Your task to perform on an android device: Search for the new Nike Air Jordan 33 on Nike.com Image 0: 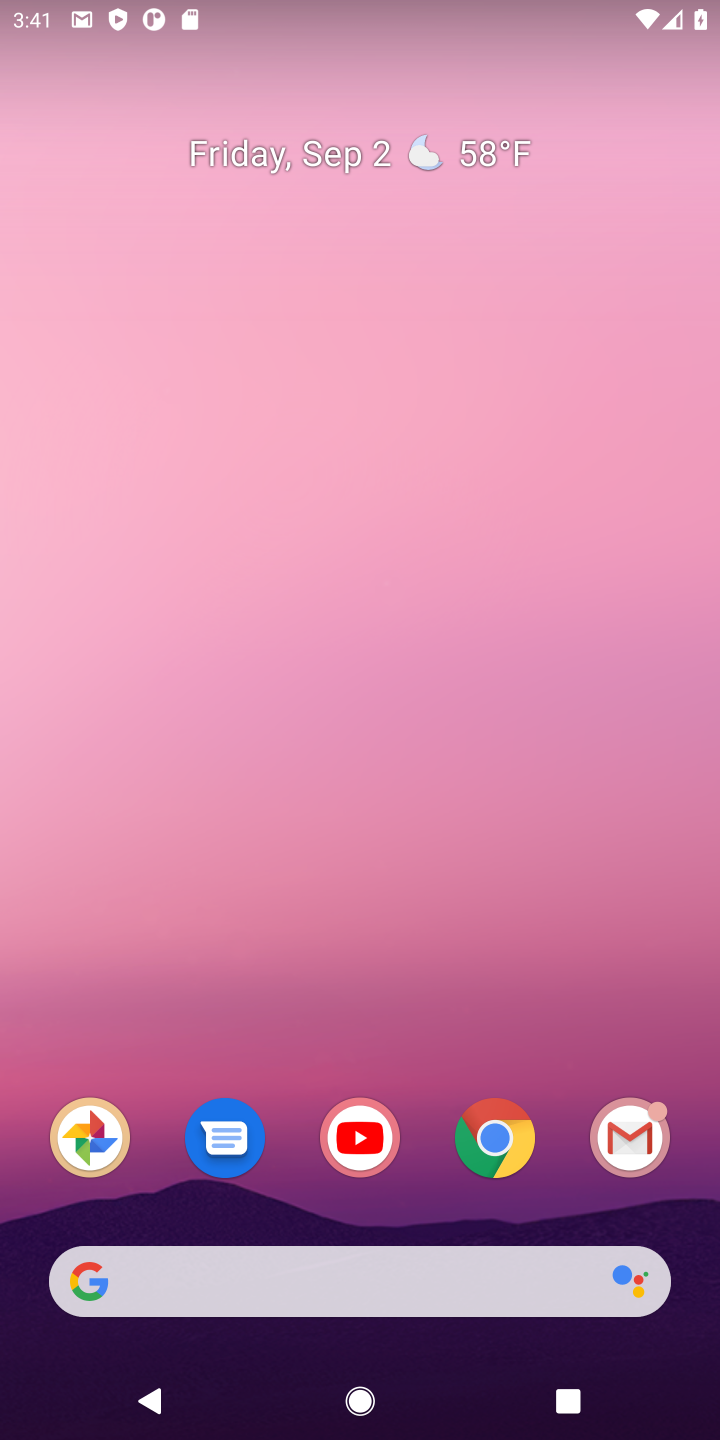
Step 0: click (488, 1143)
Your task to perform on an android device: Search for the new Nike Air Jordan 33 on Nike.com Image 1: 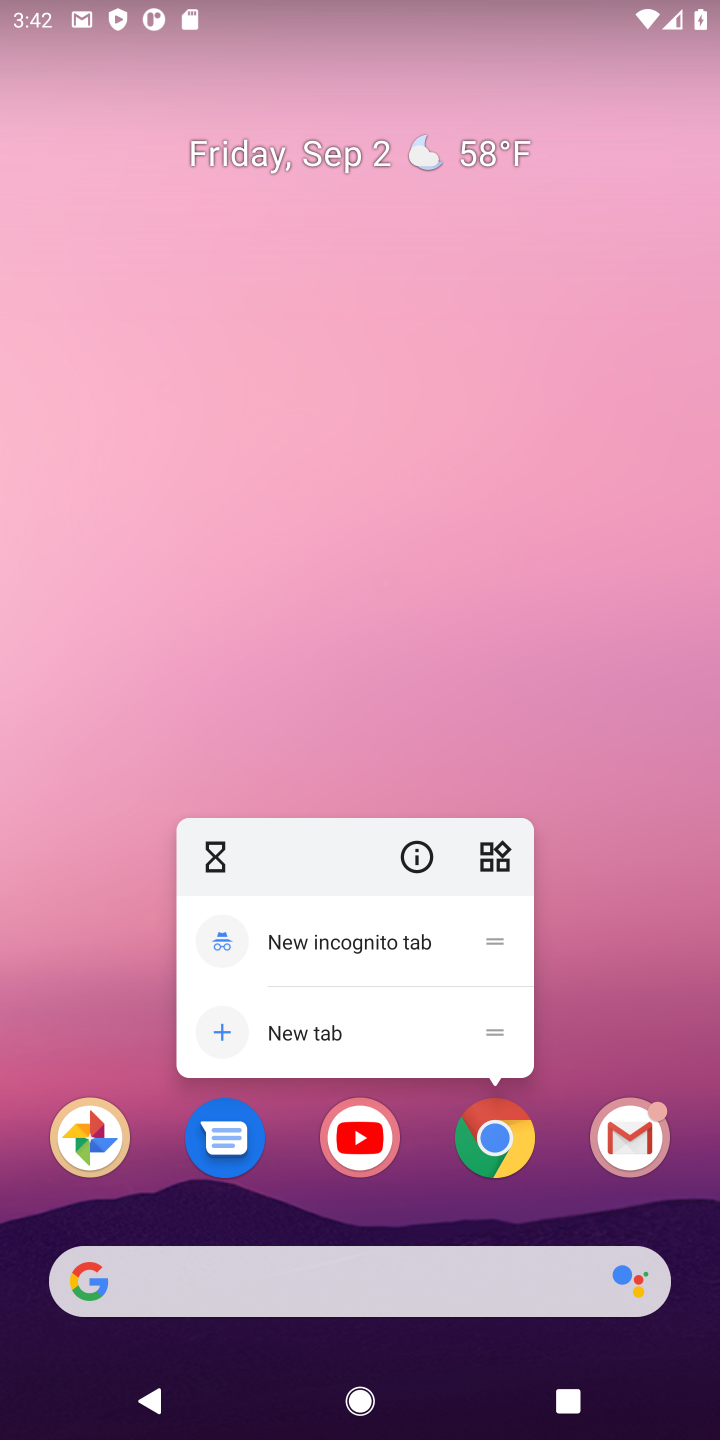
Step 1: click (506, 1124)
Your task to perform on an android device: Search for the new Nike Air Jordan 33 on Nike.com Image 2: 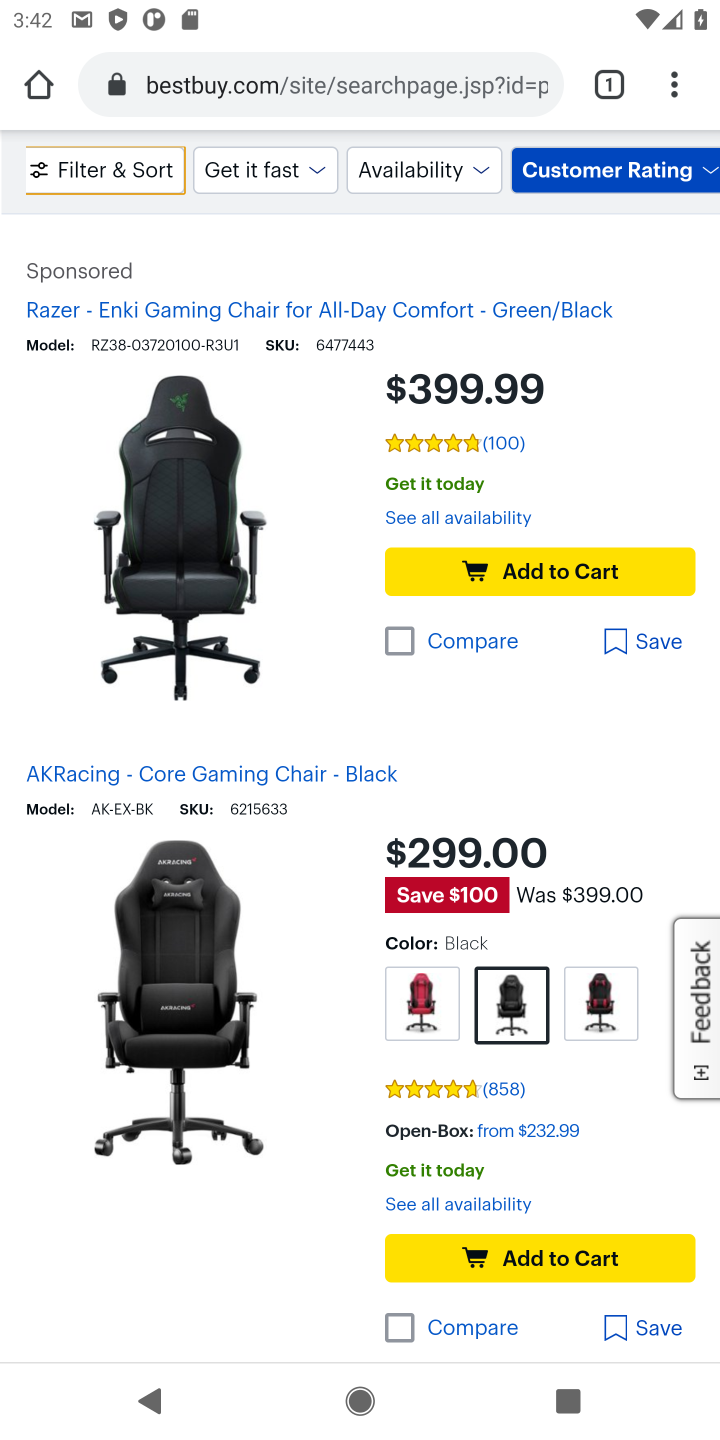
Step 2: click (379, 85)
Your task to perform on an android device: Search for the new Nike Air Jordan 33 on Nike.com Image 3: 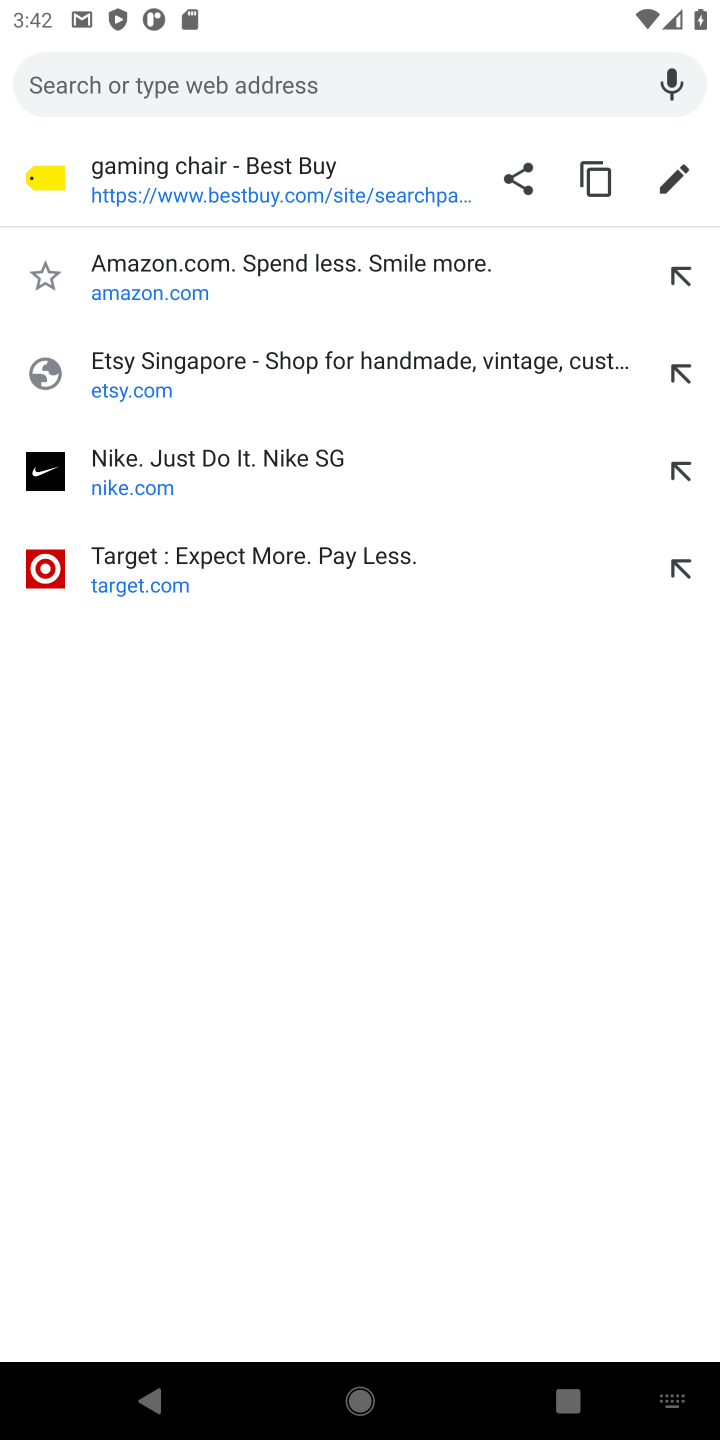
Step 3: type "nike.com"
Your task to perform on an android device: Search for the new Nike Air Jordan 33 on Nike.com Image 4: 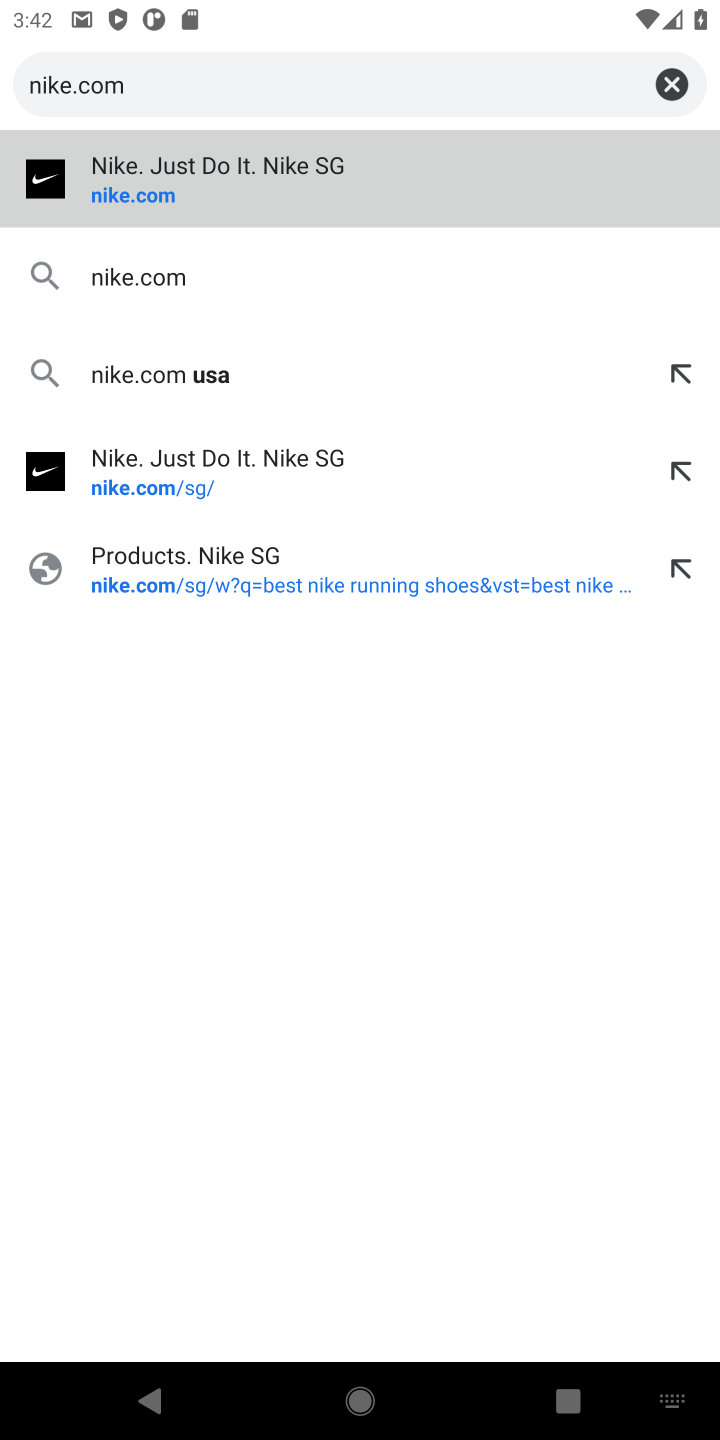
Step 4: click (271, 182)
Your task to perform on an android device: Search for the new Nike Air Jordan 33 on Nike.com Image 5: 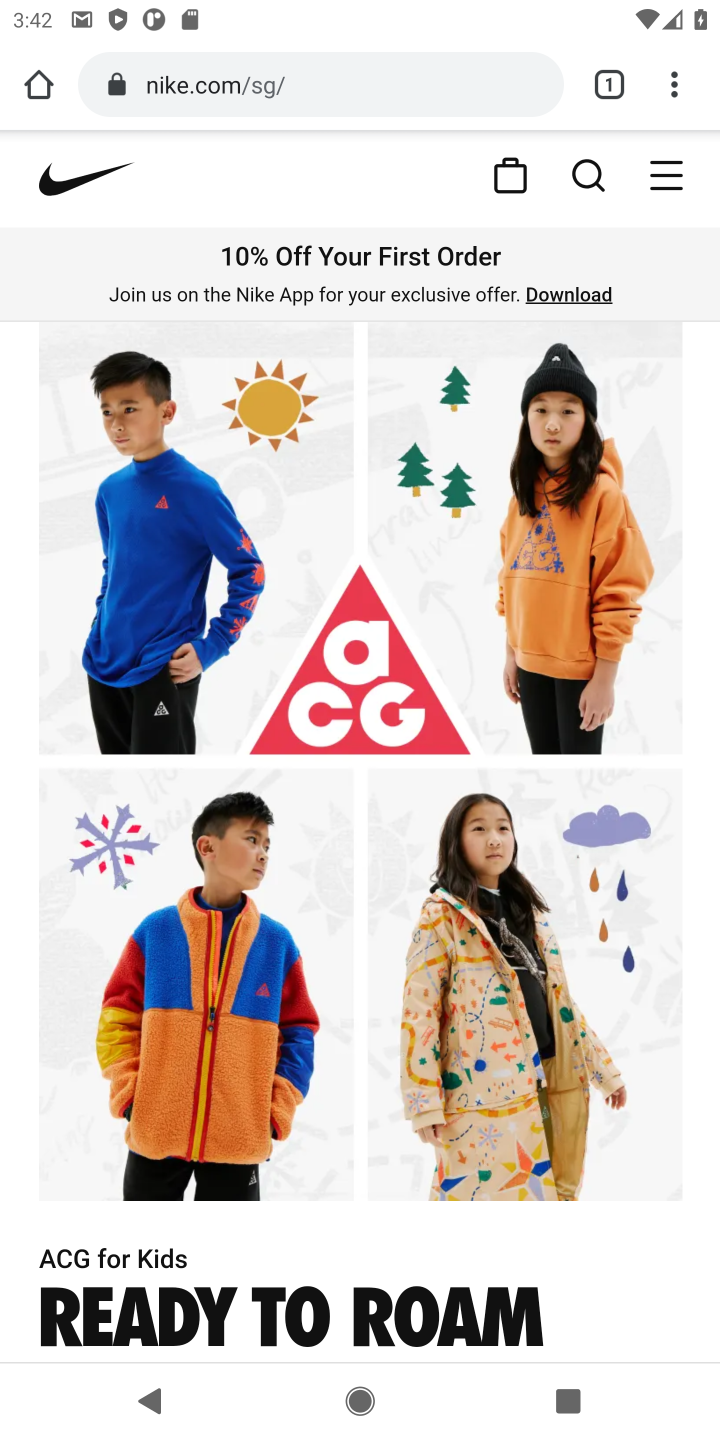
Step 5: click (593, 180)
Your task to perform on an android device: Search for the new Nike Air Jordan 33 on Nike.com Image 6: 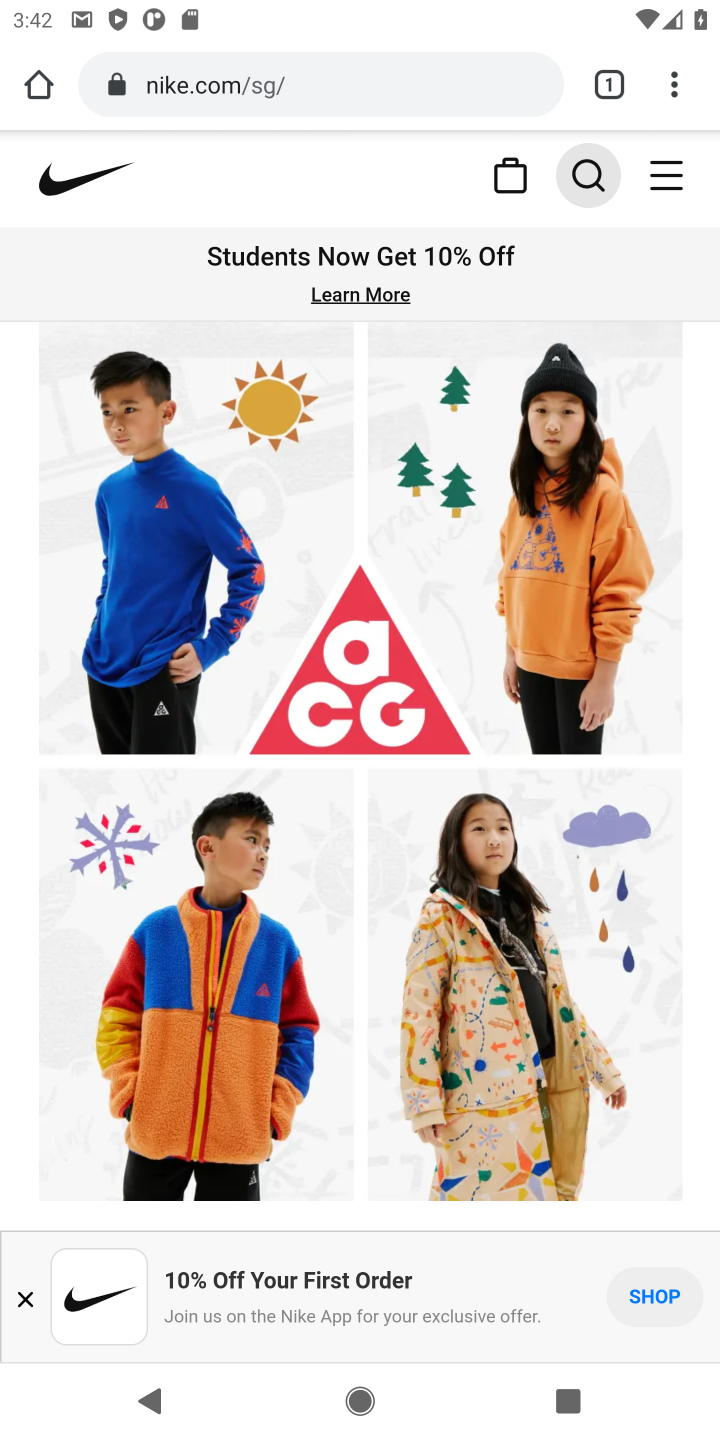
Step 6: click (591, 185)
Your task to perform on an android device: Search for the new Nike Air Jordan 33 on Nike.com Image 7: 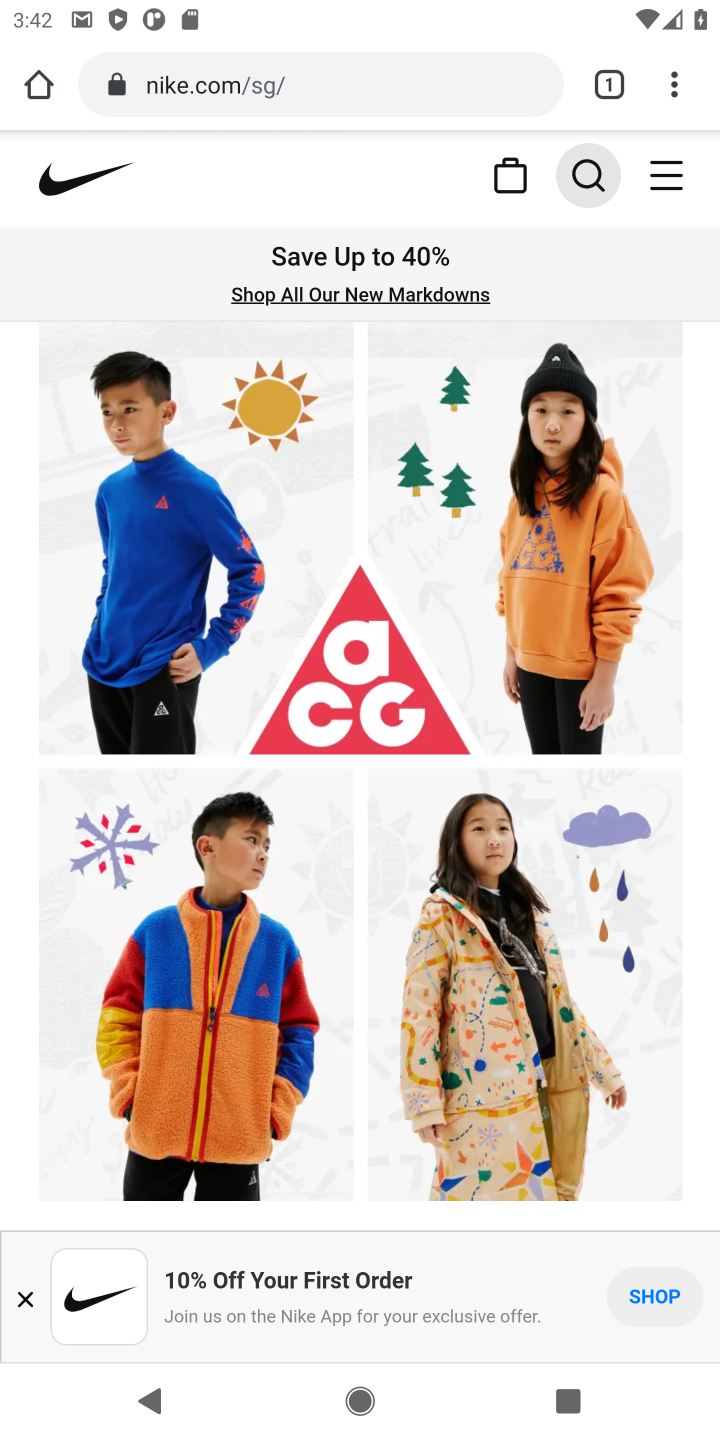
Step 7: click (591, 166)
Your task to perform on an android device: Search for the new Nike Air Jordan 33 on Nike.com Image 8: 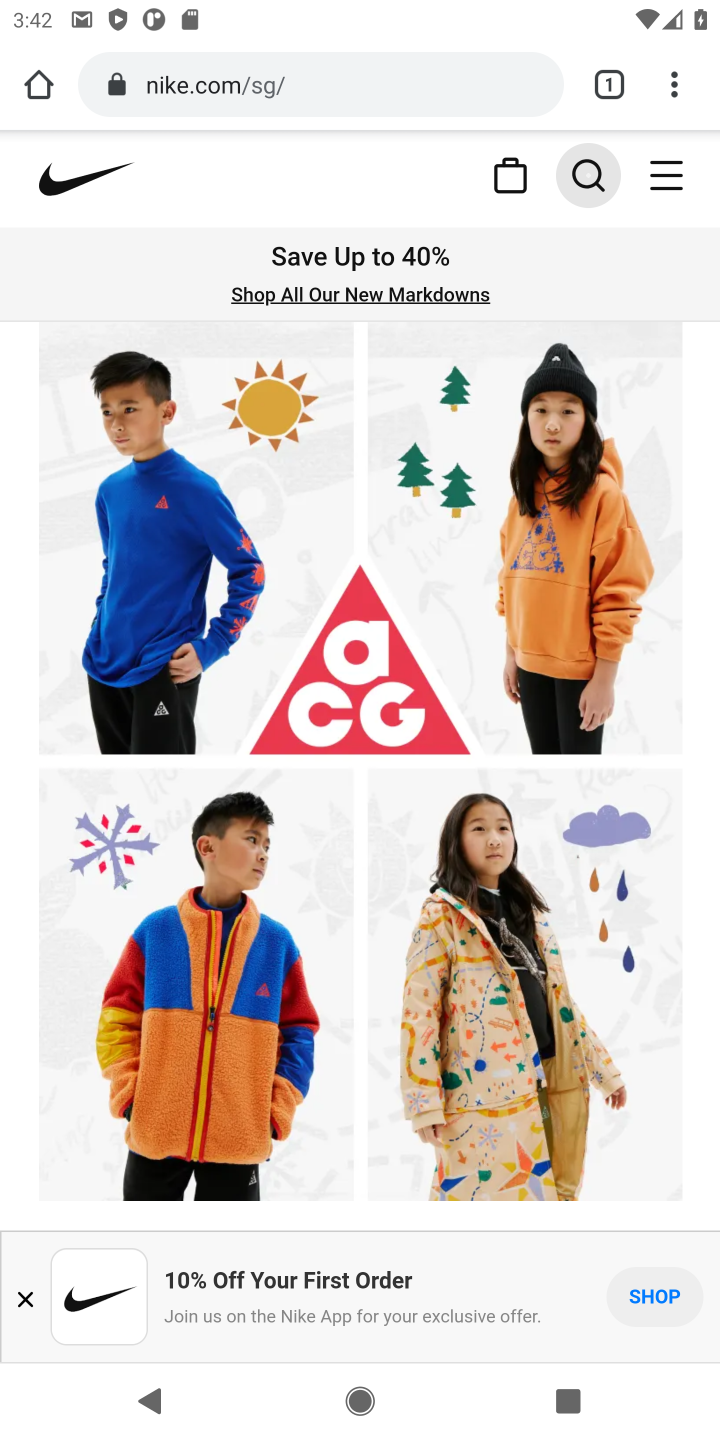
Step 8: click (591, 166)
Your task to perform on an android device: Search for the new Nike Air Jordan 33 on Nike.com Image 9: 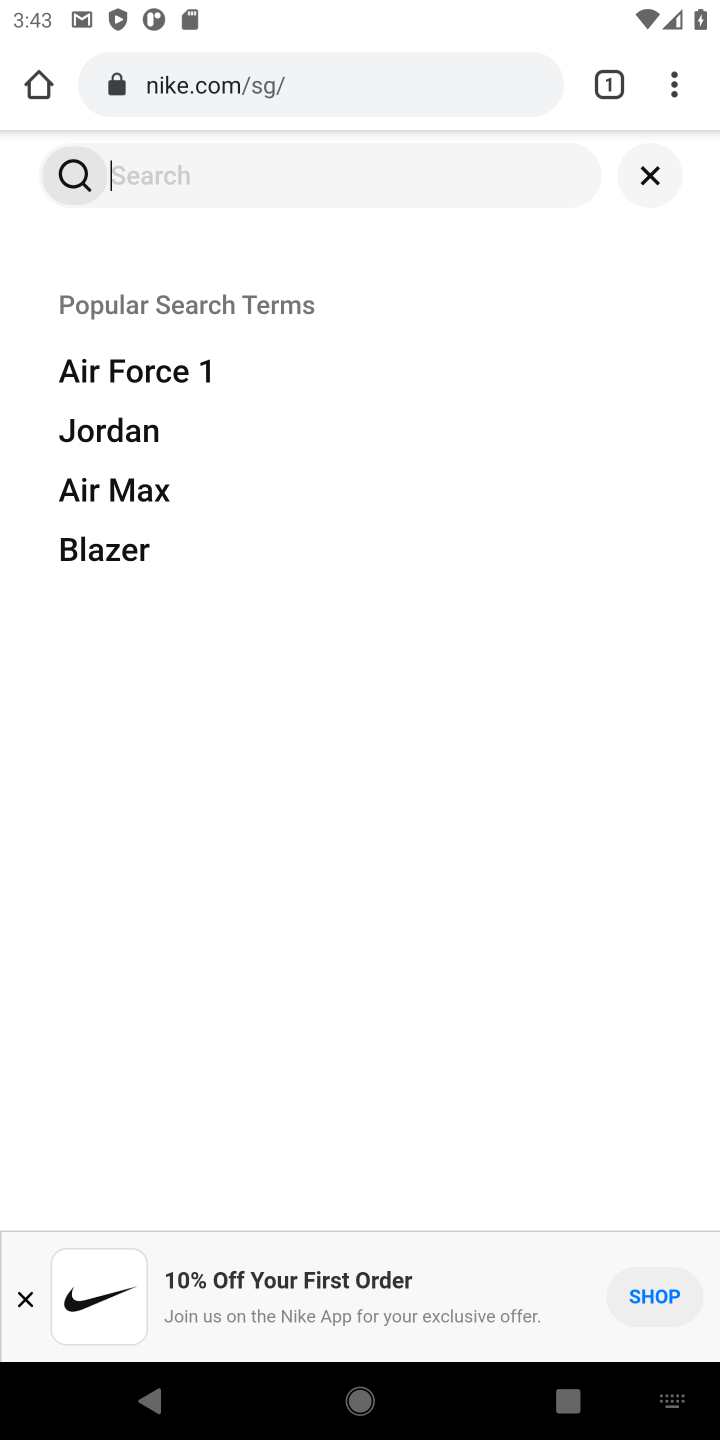
Step 9: type "new nike air jordan 33"
Your task to perform on an android device: Search for the new Nike Air Jordan 33 on Nike.com Image 10: 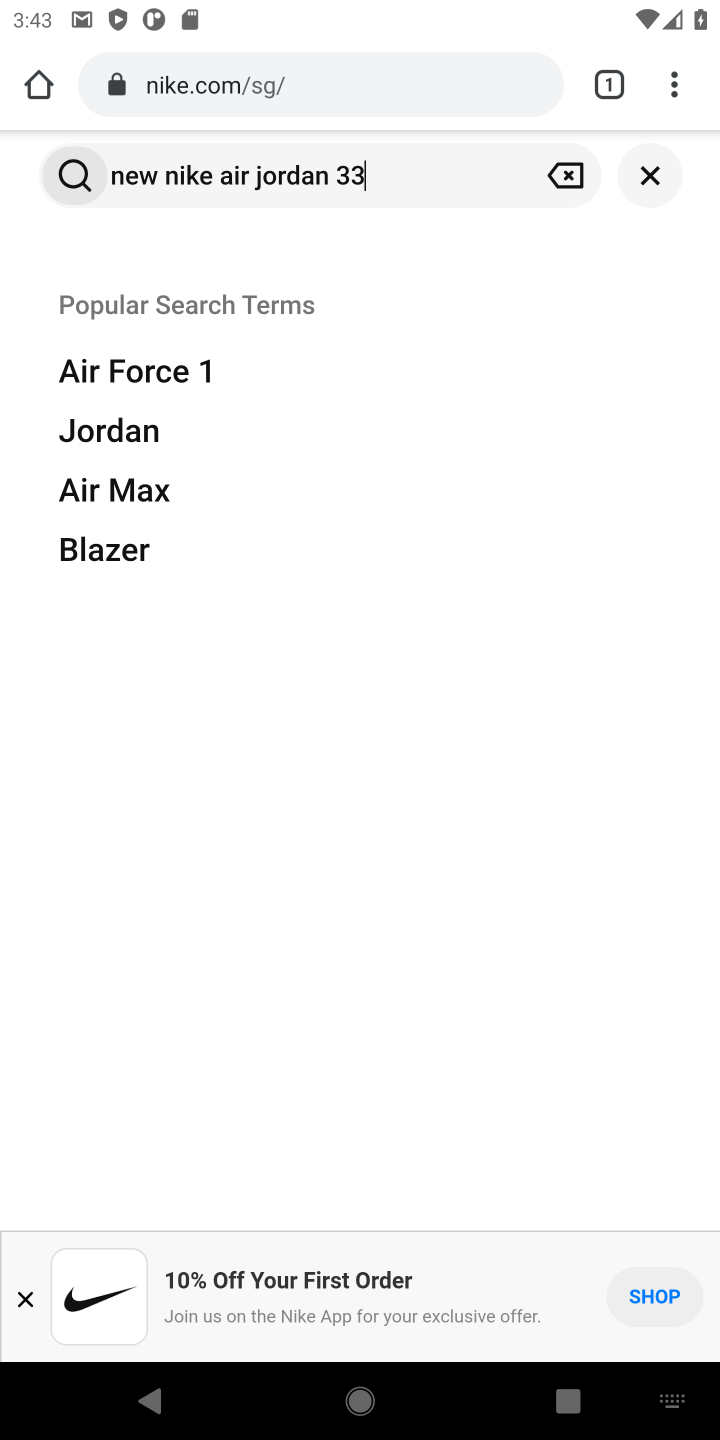
Step 10: press enter
Your task to perform on an android device: Search for the new Nike Air Jordan 33 on Nike.com Image 11: 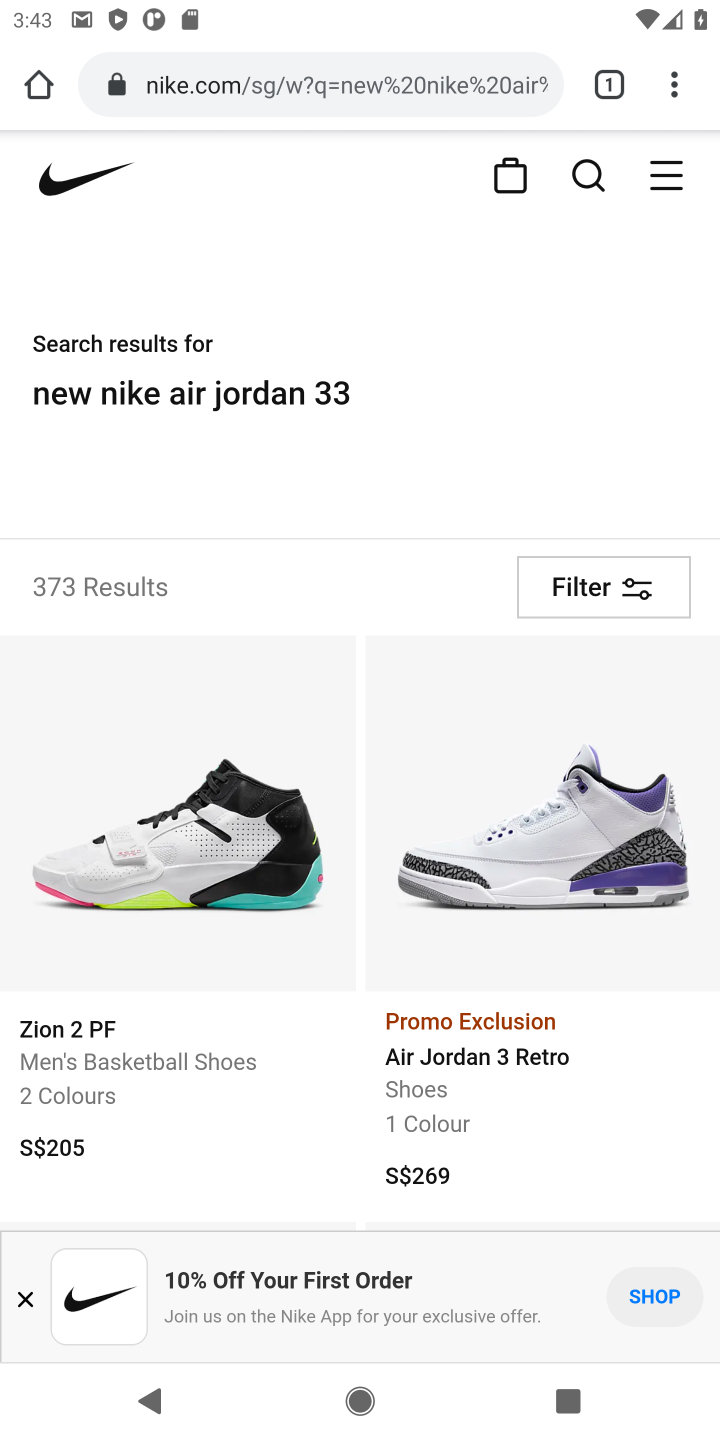
Step 11: drag from (650, 1163) to (596, 785)
Your task to perform on an android device: Search for the new Nike Air Jordan 33 on Nike.com Image 12: 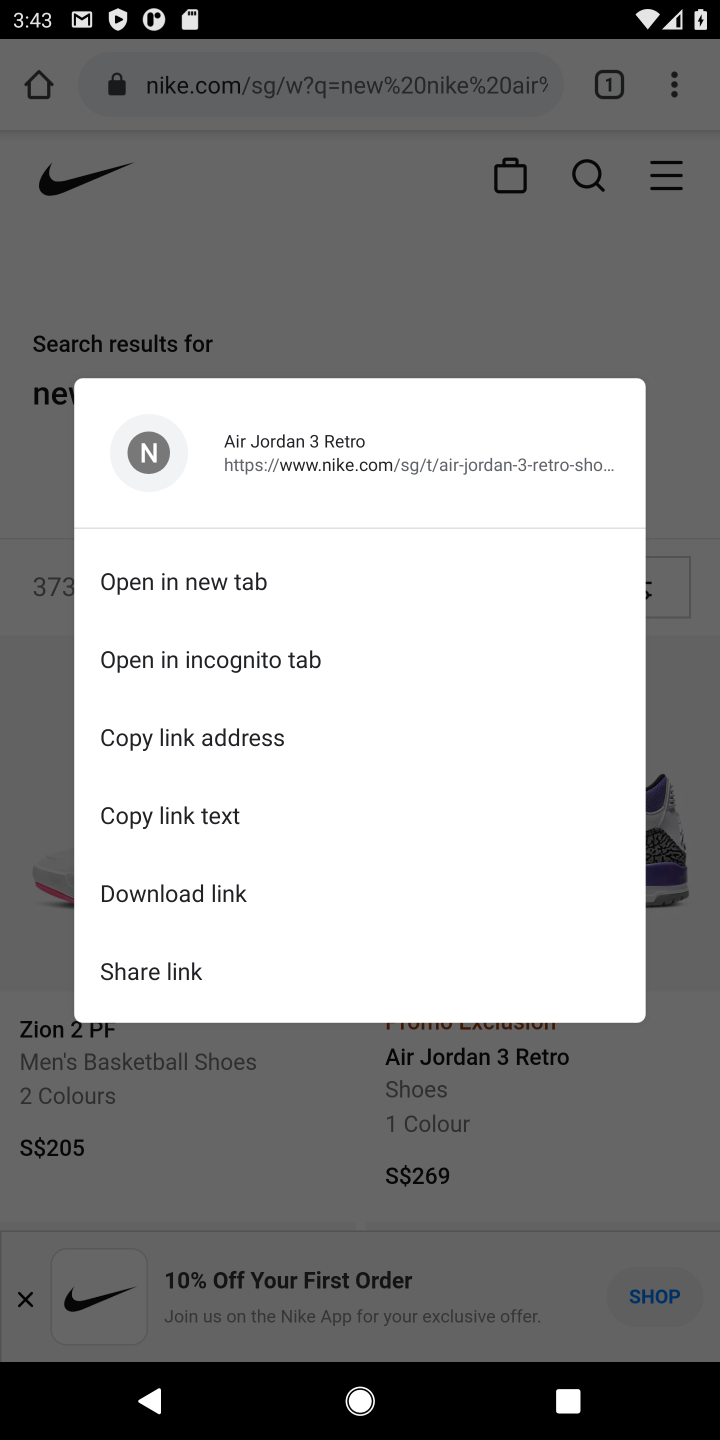
Step 12: click (689, 974)
Your task to perform on an android device: Search for the new Nike Air Jordan 33 on Nike.com Image 13: 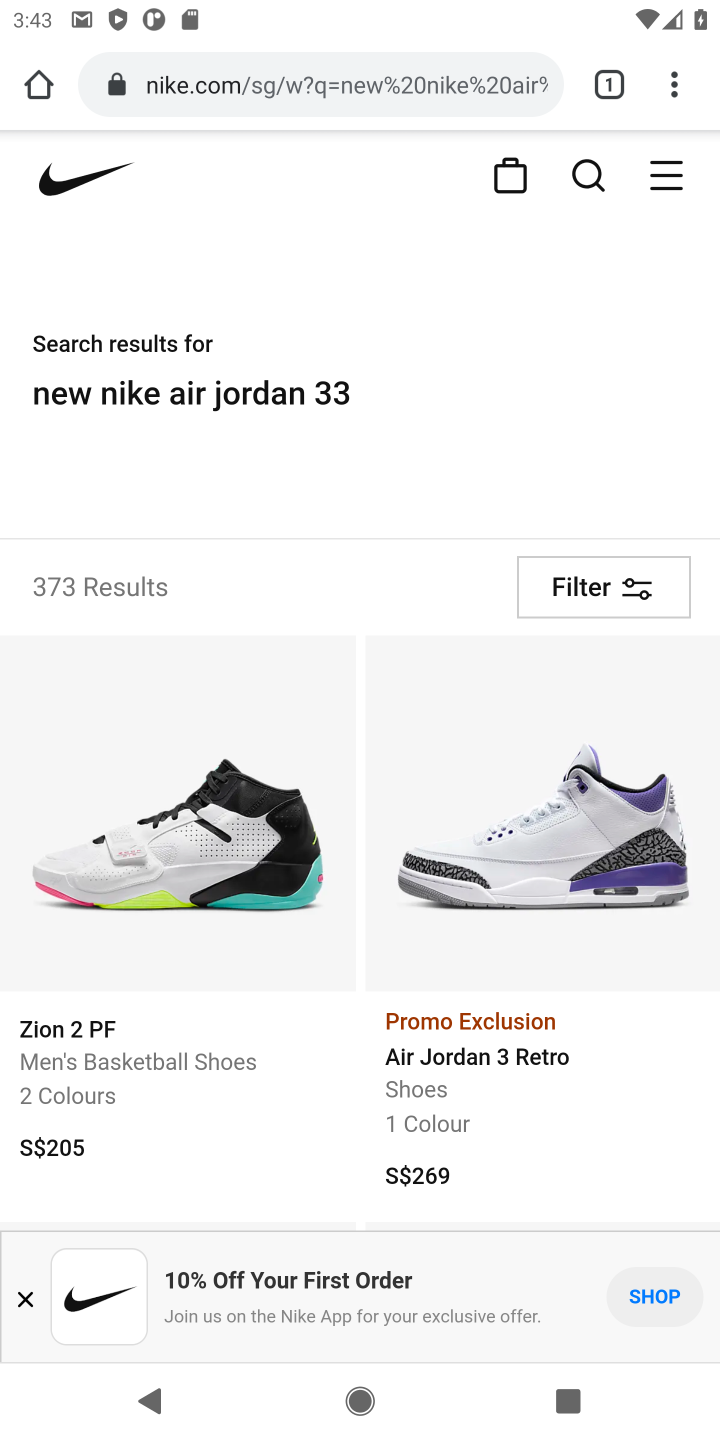
Step 13: task complete